Your task to perform on an android device: Reply to the last email I received with 'Most people are shocked when they find out how bad I am as an electrician.' and CC tau.cooperbrenna.1654798856748@gmail.com Image 0: 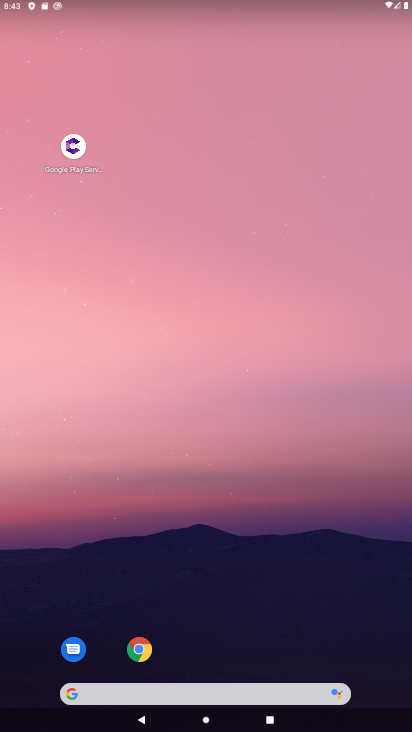
Step 0: drag from (280, 579) to (251, 3)
Your task to perform on an android device: Reply to the last email I received with 'Most people are shocked when they find out how bad I am as an electrician.' and CC tau.cooperbrenna.1654798856748@gmail.com Image 1: 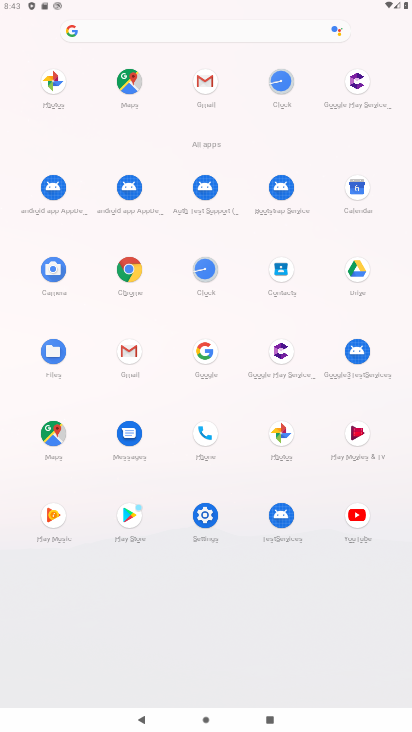
Step 1: click (204, 77)
Your task to perform on an android device: Reply to the last email I received with 'Most people are shocked when they find out how bad I am as an electrician.' and CC tau.cooperbrenna.1654798856748@gmail.com Image 2: 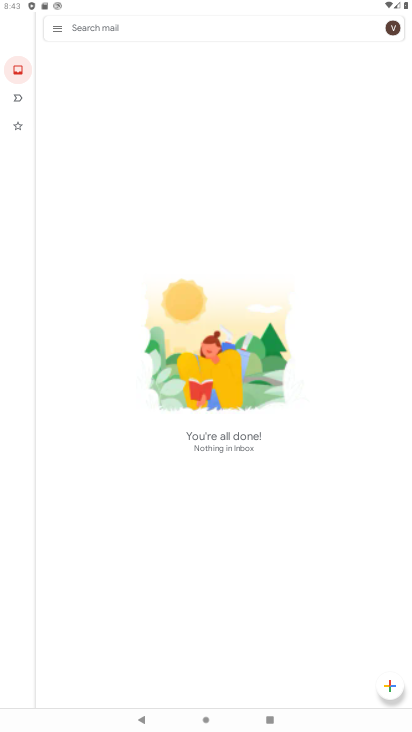
Step 2: task complete